Your task to perform on an android device: allow cookies in the chrome app Image 0: 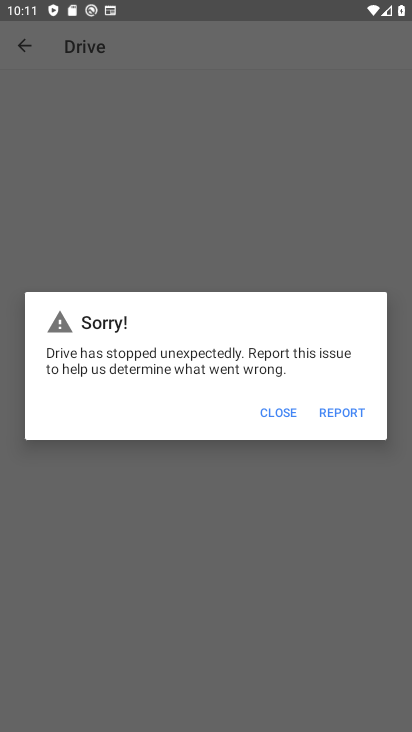
Step 0: press home button
Your task to perform on an android device: allow cookies in the chrome app Image 1: 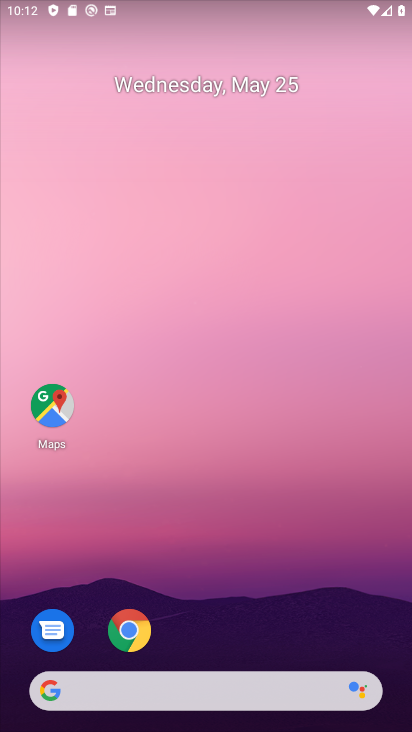
Step 1: click (122, 621)
Your task to perform on an android device: allow cookies in the chrome app Image 2: 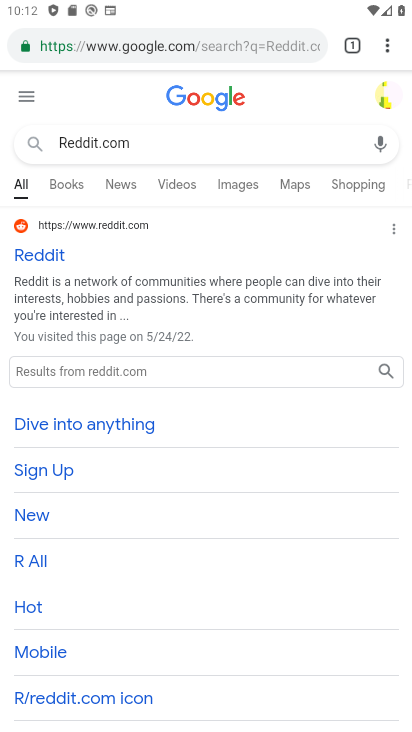
Step 2: click (382, 42)
Your task to perform on an android device: allow cookies in the chrome app Image 3: 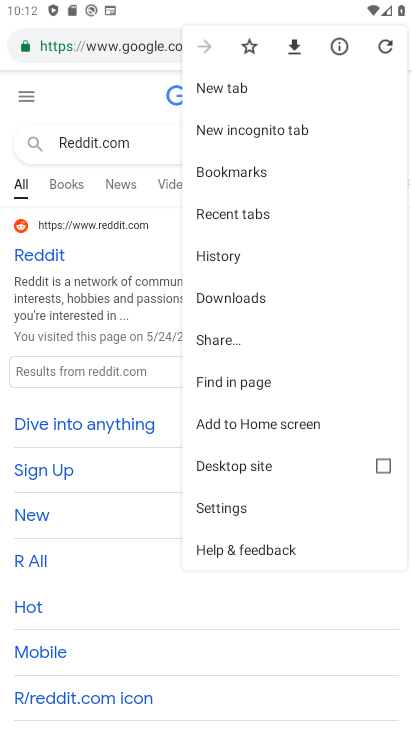
Step 3: click (213, 506)
Your task to perform on an android device: allow cookies in the chrome app Image 4: 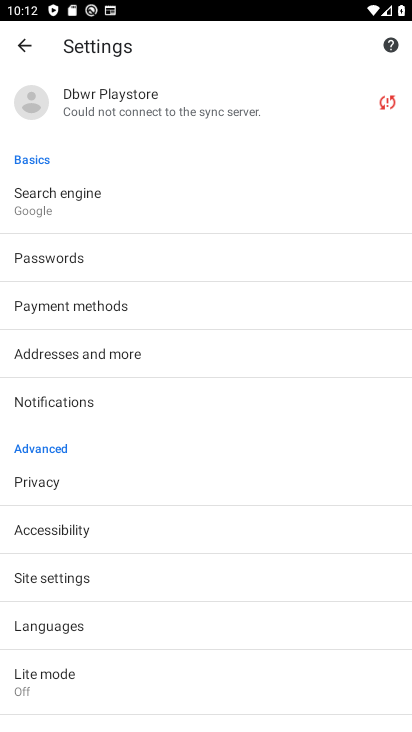
Step 4: click (87, 524)
Your task to perform on an android device: allow cookies in the chrome app Image 5: 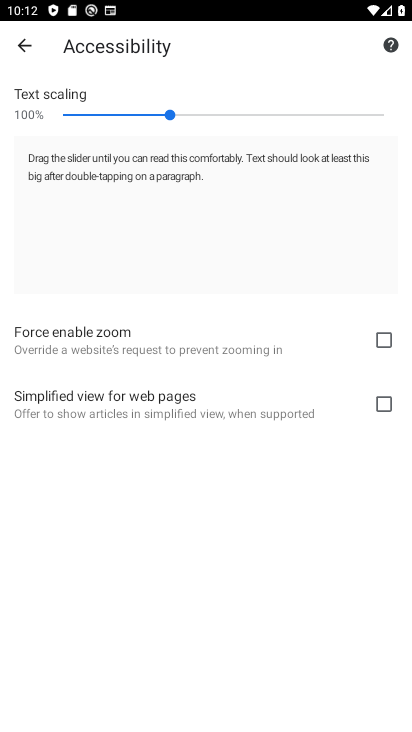
Step 5: click (18, 41)
Your task to perform on an android device: allow cookies in the chrome app Image 6: 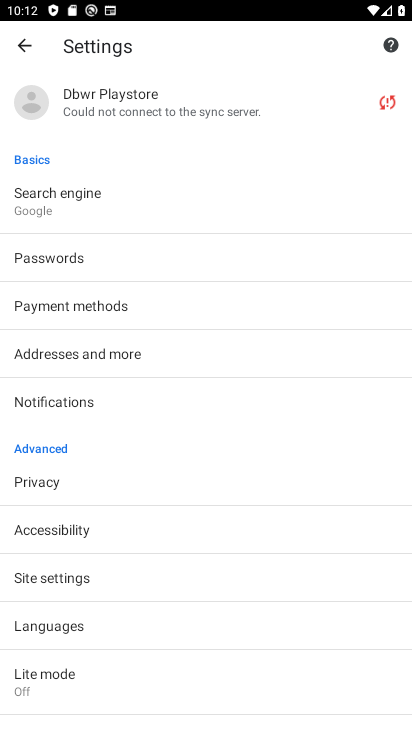
Step 6: click (36, 570)
Your task to perform on an android device: allow cookies in the chrome app Image 7: 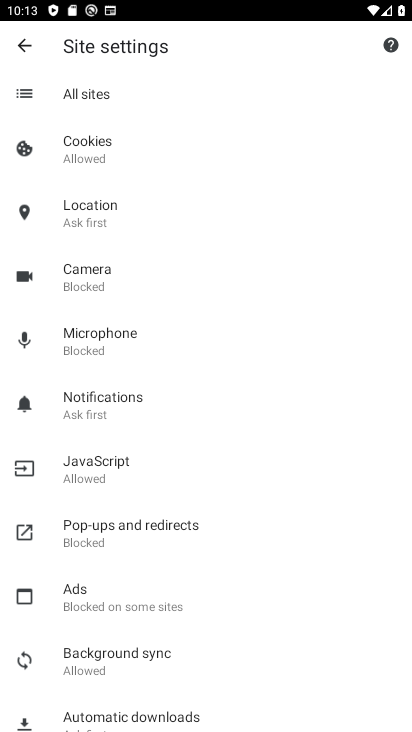
Step 7: click (83, 145)
Your task to perform on an android device: allow cookies in the chrome app Image 8: 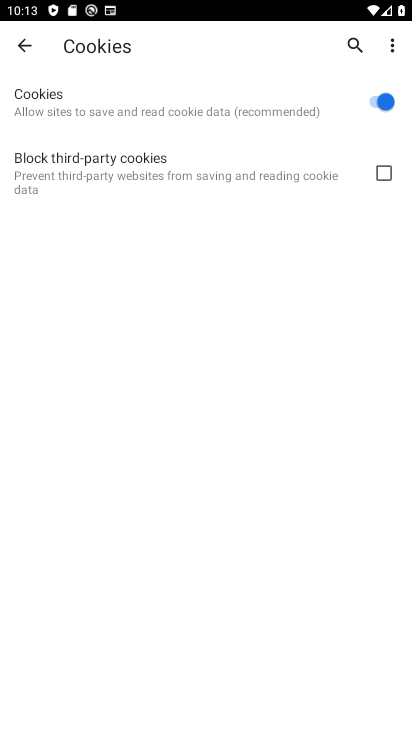
Step 8: task complete